Your task to perform on an android device: install app "Adobe Acrobat Reader: Edit PDF" Image 0: 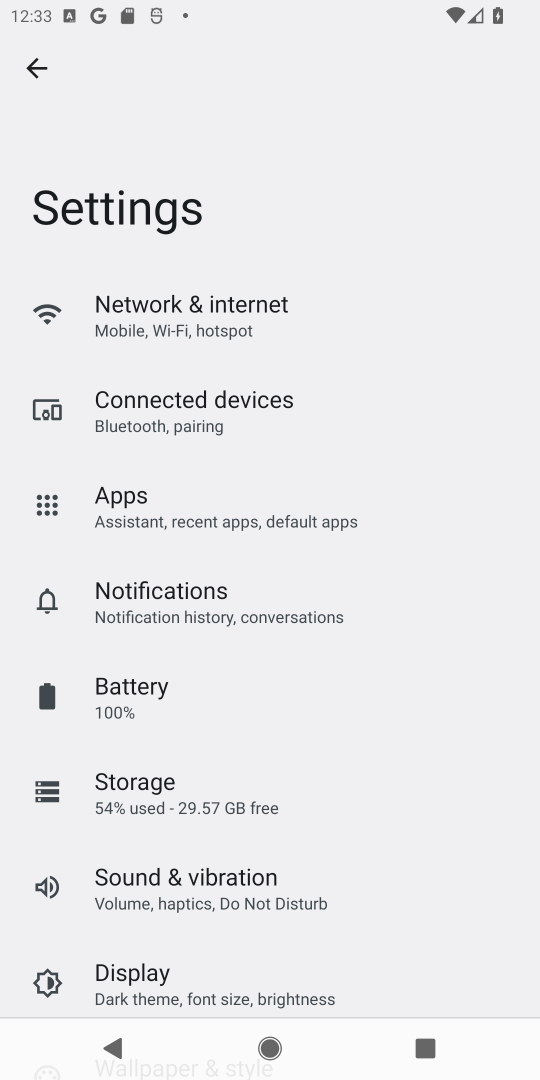
Step 0: press home button
Your task to perform on an android device: install app "Adobe Acrobat Reader: Edit PDF" Image 1: 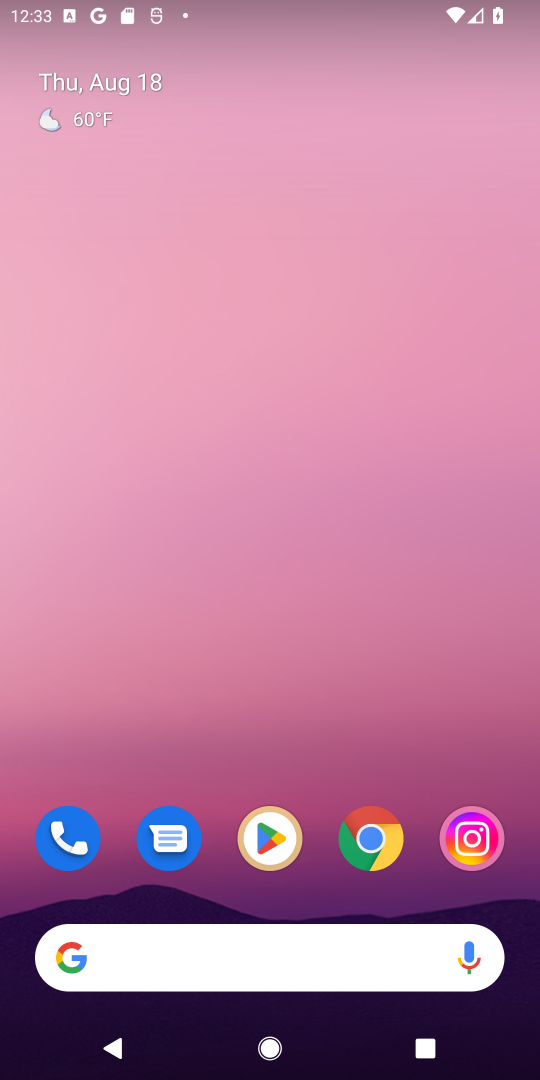
Step 1: click (265, 824)
Your task to perform on an android device: install app "Adobe Acrobat Reader: Edit PDF" Image 2: 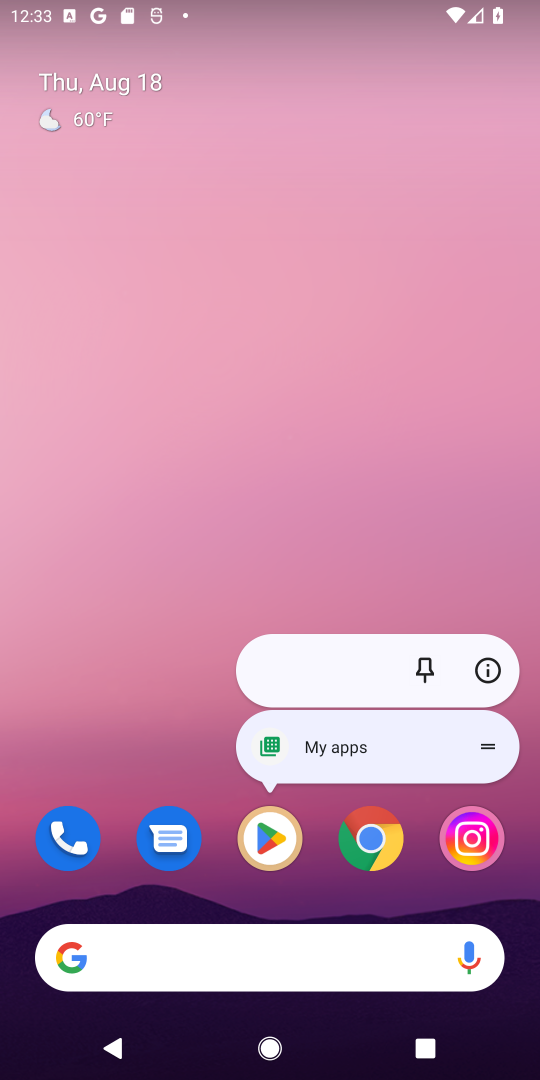
Step 2: click (265, 824)
Your task to perform on an android device: install app "Adobe Acrobat Reader: Edit PDF" Image 3: 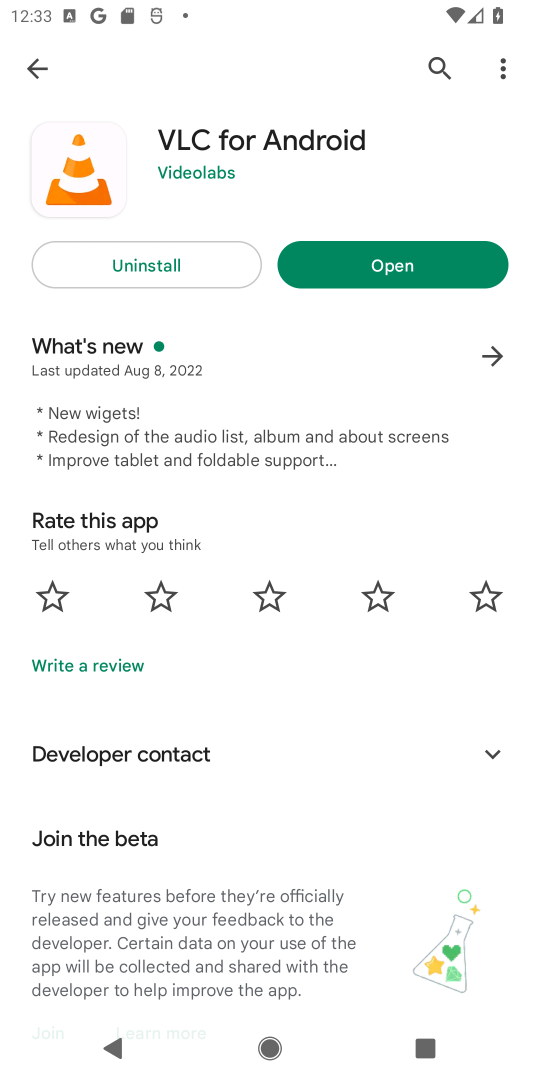
Step 3: click (423, 68)
Your task to perform on an android device: install app "Adobe Acrobat Reader: Edit PDF" Image 4: 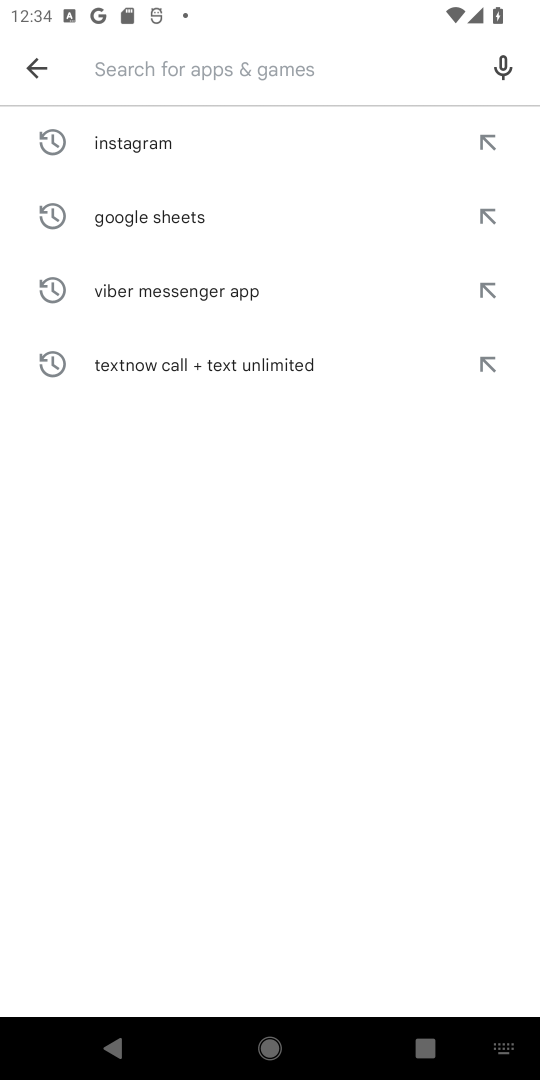
Step 4: type "Adobe Acrobat Reader: Edit PD"
Your task to perform on an android device: install app "Adobe Acrobat Reader: Edit PDF" Image 5: 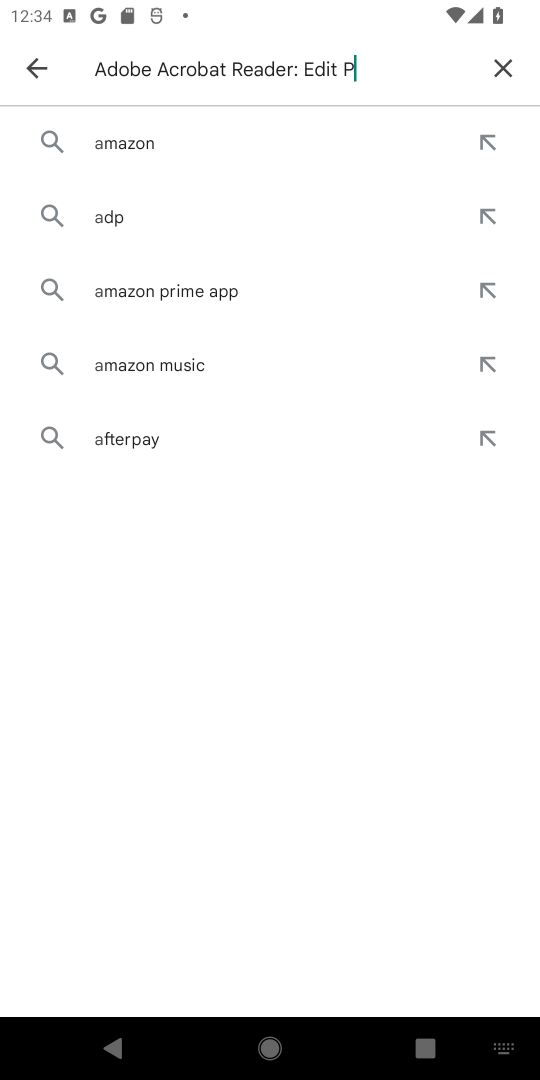
Step 5: type ""
Your task to perform on an android device: install app "Adobe Acrobat Reader: Edit PDF" Image 6: 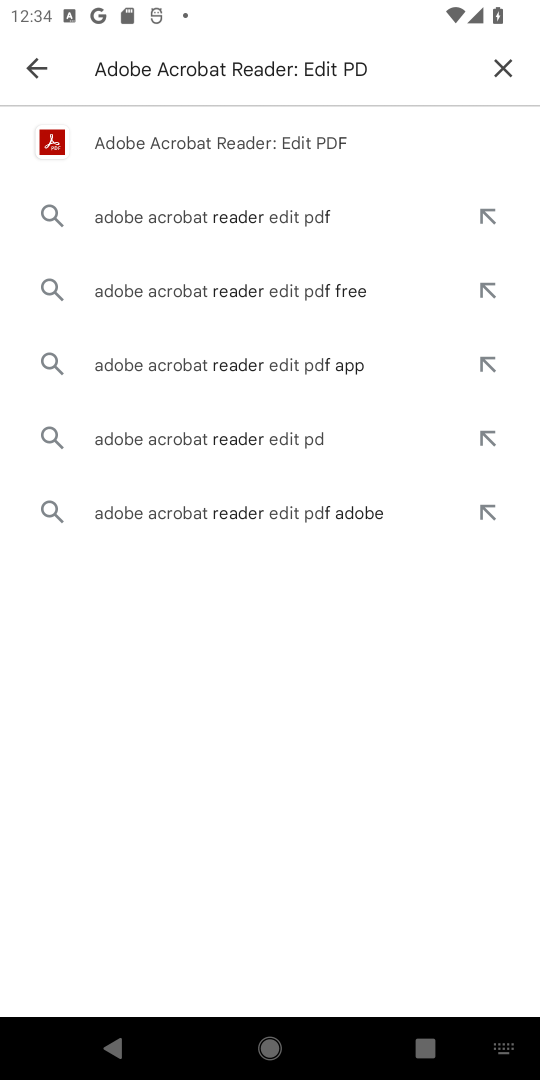
Step 6: click (230, 130)
Your task to perform on an android device: install app "Adobe Acrobat Reader: Edit PDF" Image 7: 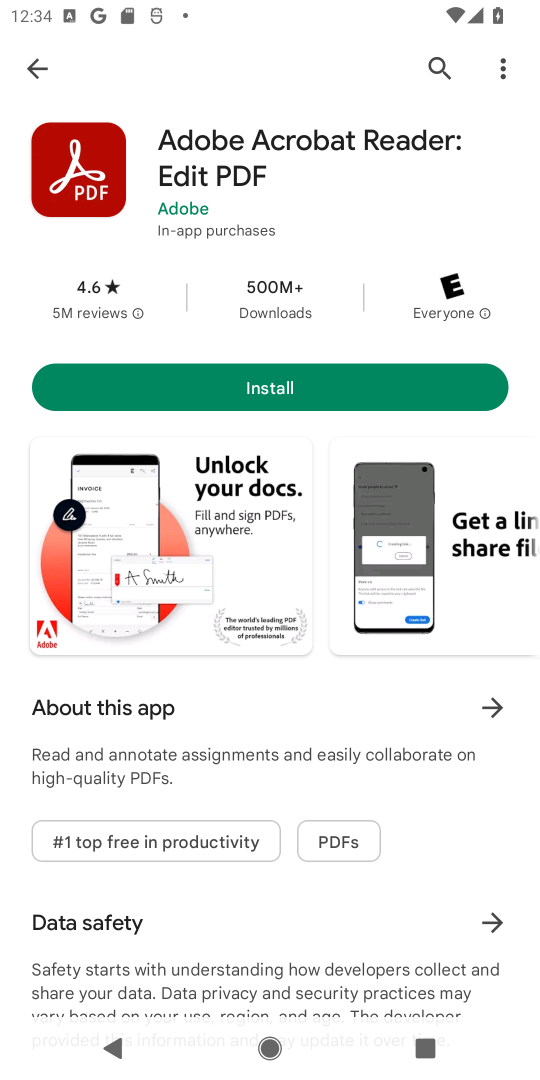
Step 7: click (280, 374)
Your task to perform on an android device: install app "Adobe Acrobat Reader: Edit PDF" Image 8: 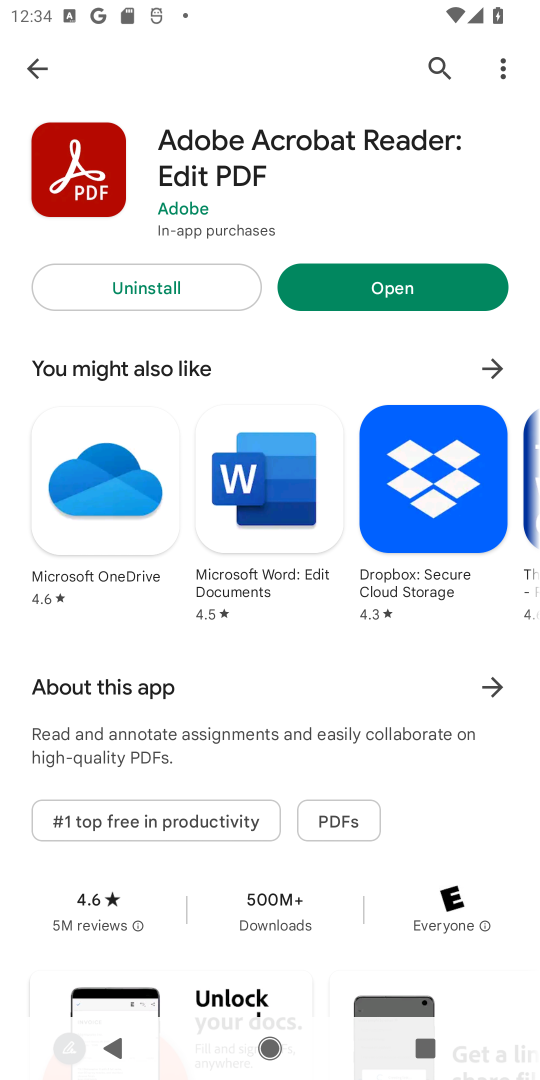
Step 8: task complete